Your task to perform on an android device: star an email in the gmail app Image 0: 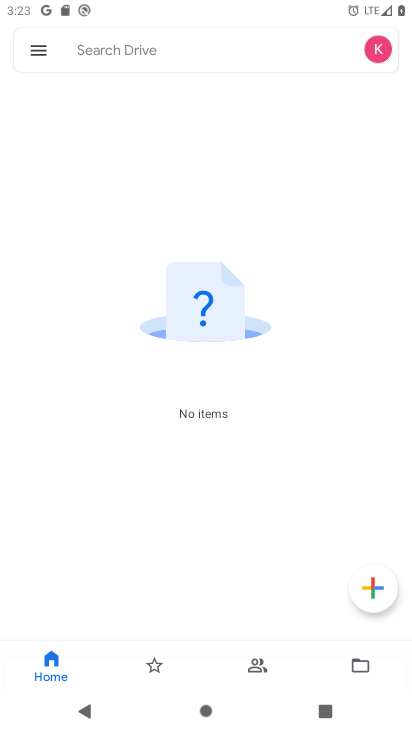
Step 0: press home button
Your task to perform on an android device: star an email in the gmail app Image 1: 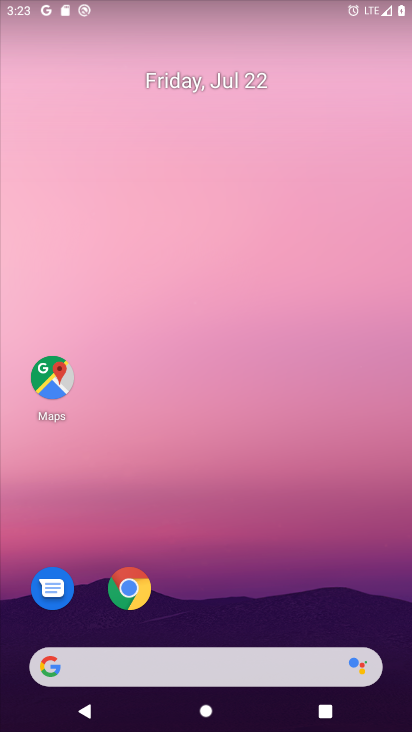
Step 1: drag from (237, 562) to (258, 102)
Your task to perform on an android device: star an email in the gmail app Image 2: 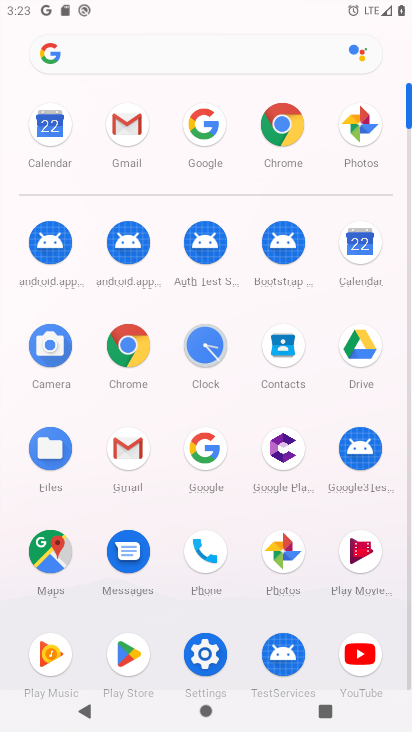
Step 2: click (123, 445)
Your task to perform on an android device: star an email in the gmail app Image 3: 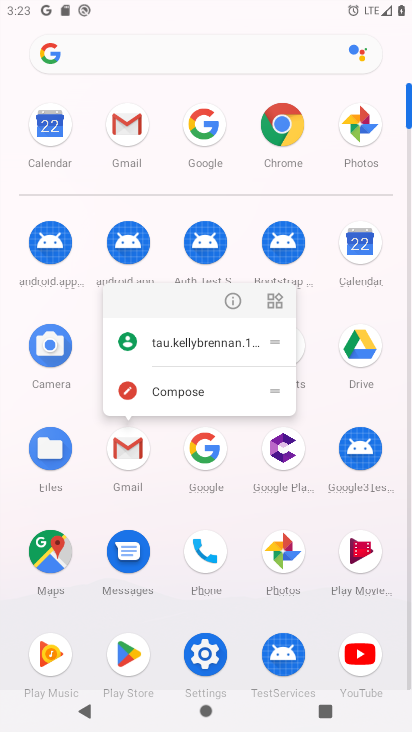
Step 3: click (117, 445)
Your task to perform on an android device: star an email in the gmail app Image 4: 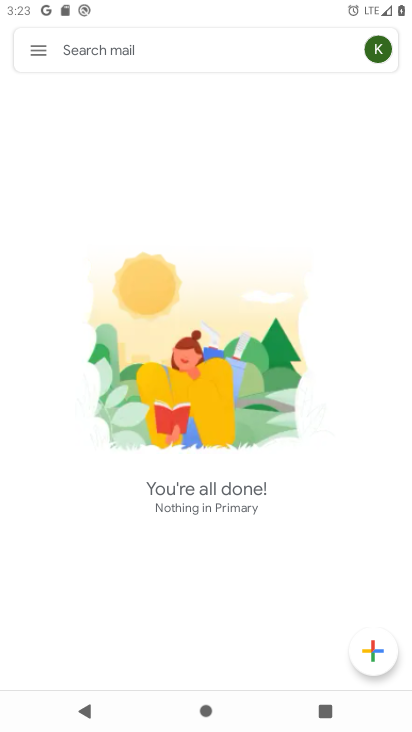
Step 4: task complete